Your task to perform on an android device: Open calendar and show me the second week of next month Image 0: 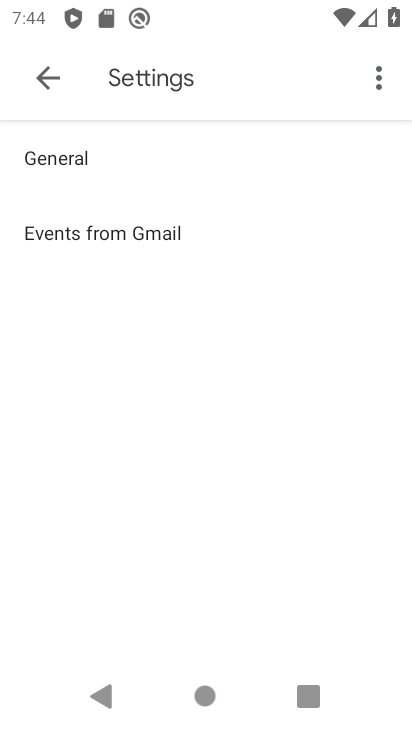
Step 0: press home button
Your task to perform on an android device: Open calendar and show me the second week of next month Image 1: 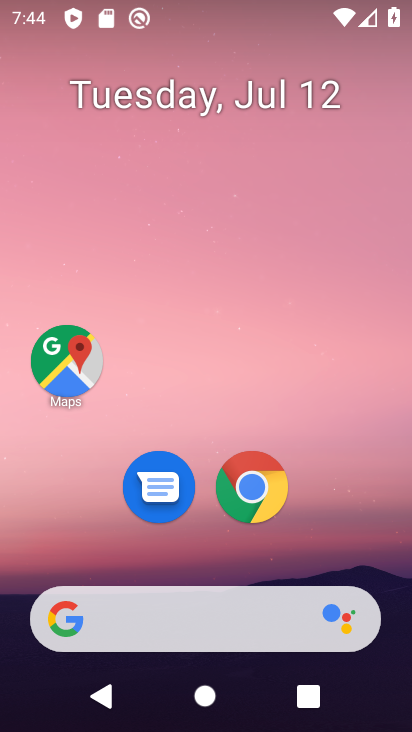
Step 1: drag from (228, 656) to (256, 187)
Your task to perform on an android device: Open calendar and show me the second week of next month Image 2: 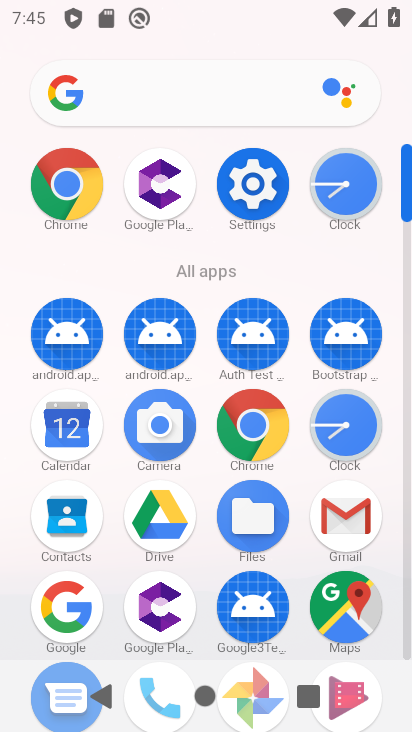
Step 2: drag from (196, 546) to (237, 260)
Your task to perform on an android device: Open calendar and show me the second week of next month Image 3: 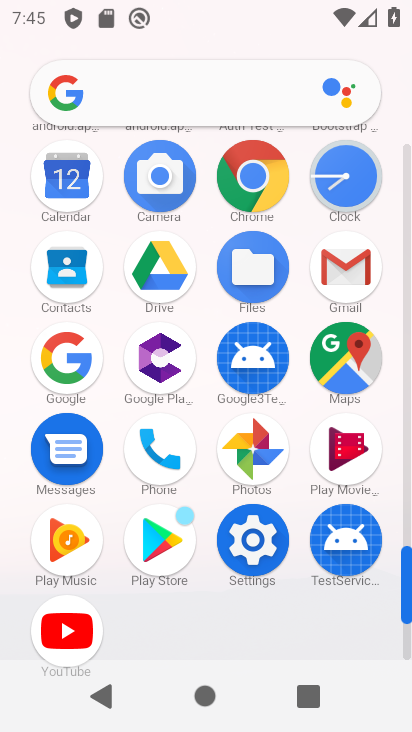
Step 3: drag from (213, 297) to (159, 532)
Your task to perform on an android device: Open calendar and show me the second week of next month Image 4: 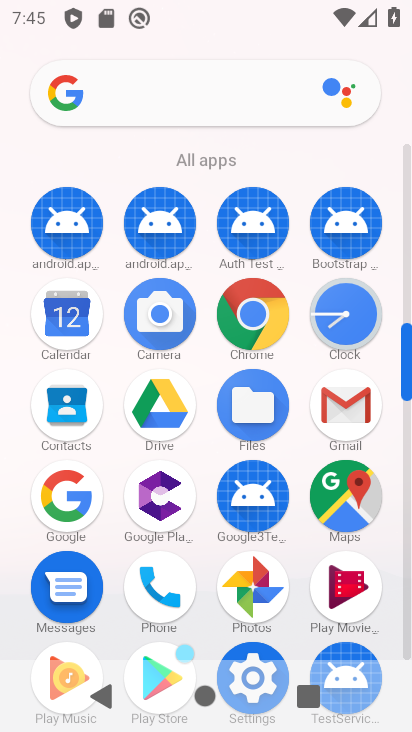
Step 4: drag from (275, 298) to (243, 609)
Your task to perform on an android device: Open calendar and show me the second week of next month Image 5: 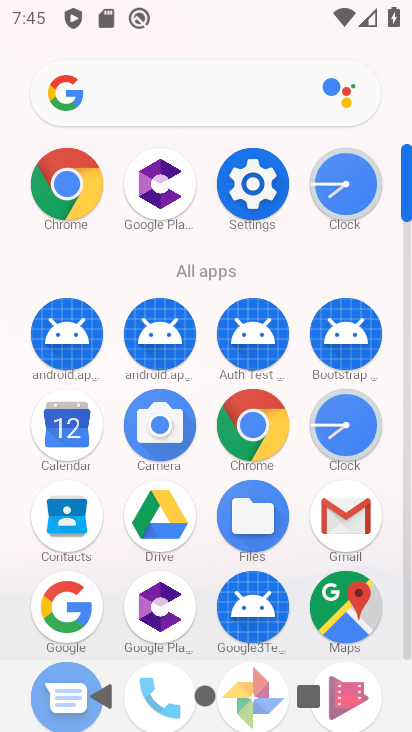
Step 5: click (69, 449)
Your task to perform on an android device: Open calendar and show me the second week of next month Image 6: 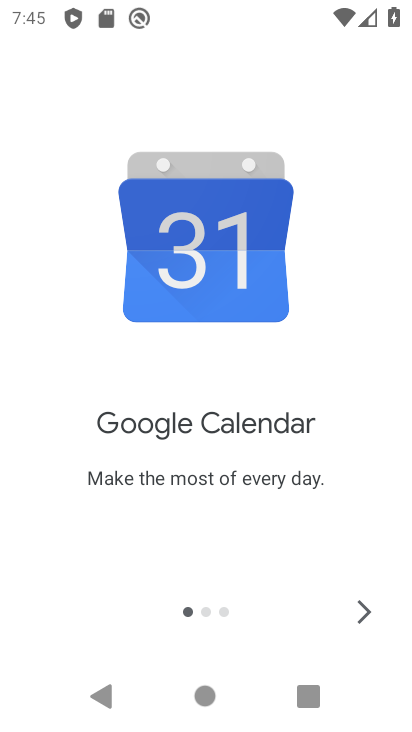
Step 6: click (366, 616)
Your task to perform on an android device: Open calendar and show me the second week of next month Image 7: 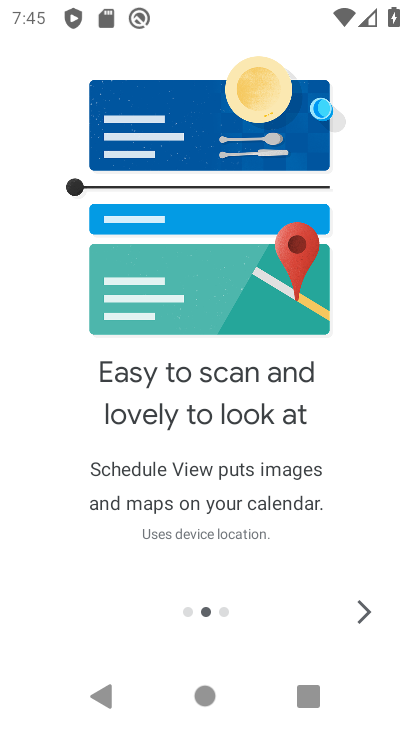
Step 7: click (366, 615)
Your task to perform on an android device: Open calendar and show me the second week of next month Image 8: 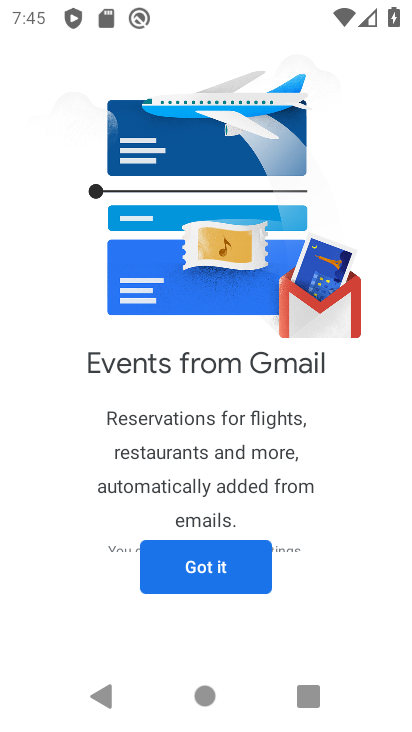
Step 8: click (241, 571)
Your task to perform on an android device: Open calendar and show me the second week of next month Image 9: 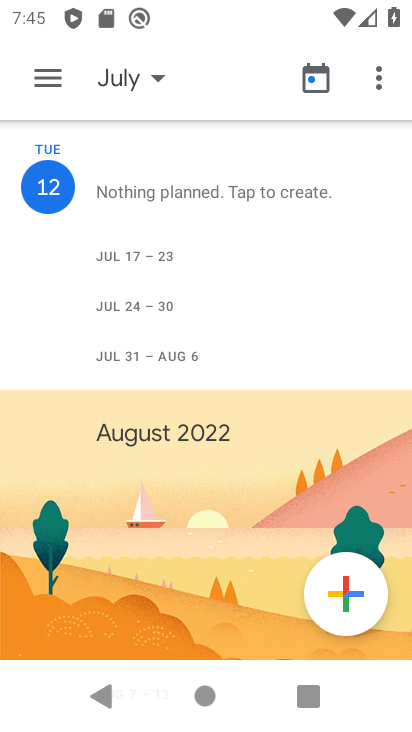
Step 9: click (149, 89)
Your task to perform on an android device: Open calendar and show me the second week of next month Image 10: 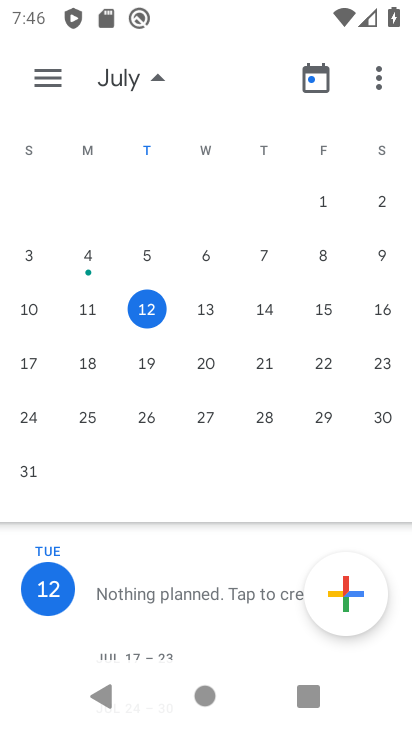
Step 10: drag from (359, 420) to (19, 349)
Your task to perform on an android device: Open calendar and show me the second week of next month Image 11: 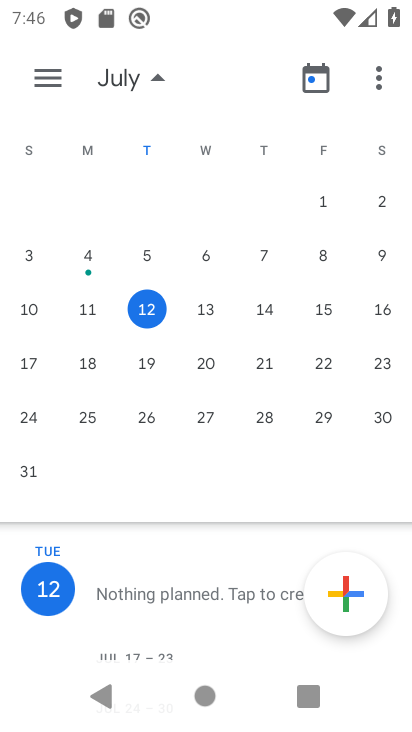
Step 11: drag from (380, 308) to (20, 355)
Your task to perform on an android device: Open calendar and show me the second week of next month Image 12: 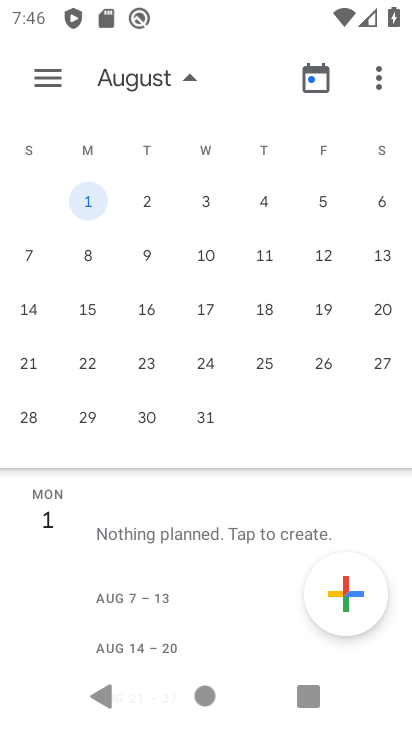
Step 12: click (26, 260)
Your task to perform on an android device: Open calendar and show me the second week of next month Image 13: 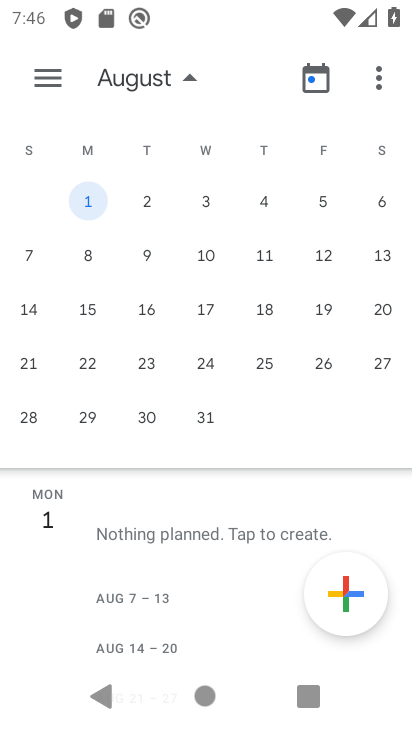
Step 13: click (29, 258)
Your task to perform on an android device: Open calendar and show me the second week of next month Image 14: 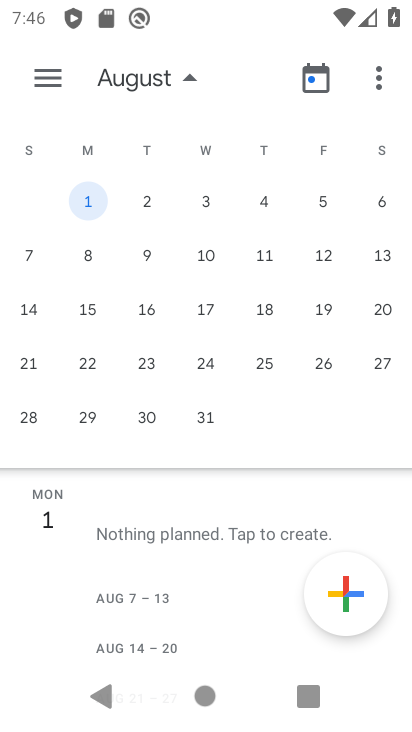
Step 14: click (36, 255)
Your task to perform on an android device: Open calendar and show me the second week of next month Image 15: 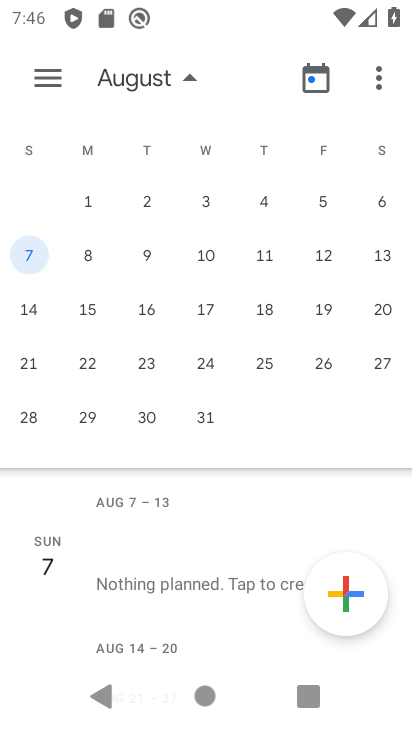
Step 15: task complete